Your task to perform on an android device: turn off location Image 0: 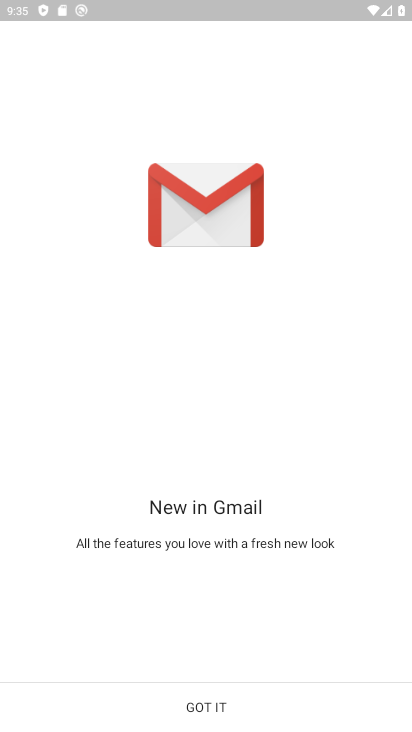
Step 0: press home button
Your task to perform on an android device: turn off location Image 1: 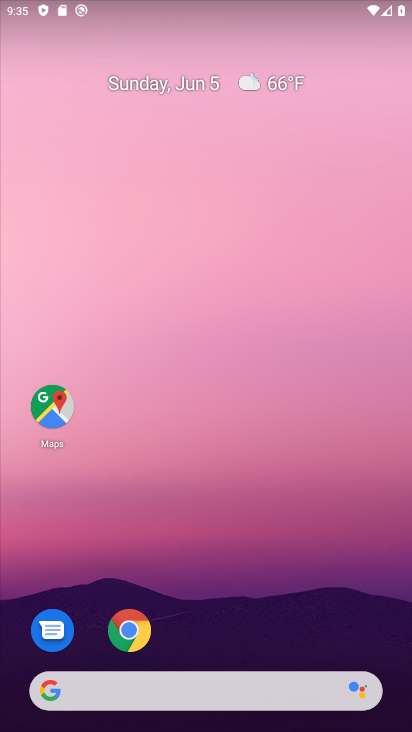
Step 1: drag from (216, 723) to (176, 166)
Your task to perform on an android device: turn off location Image 2: 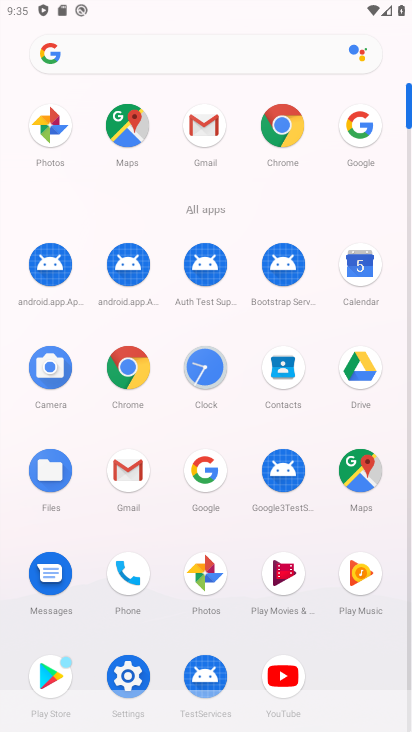
Step 2: click (127, 670)
Your task to perform on an android device: turn off location Image 3: 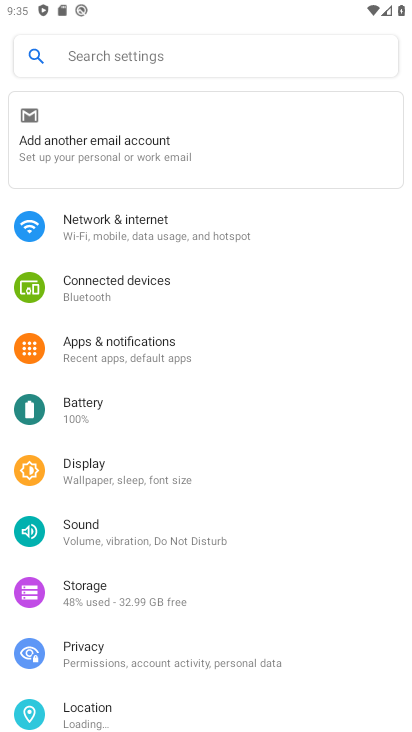
Step 3: click (88, 711)
Your task to perform on an android device: turn off location Image 4: 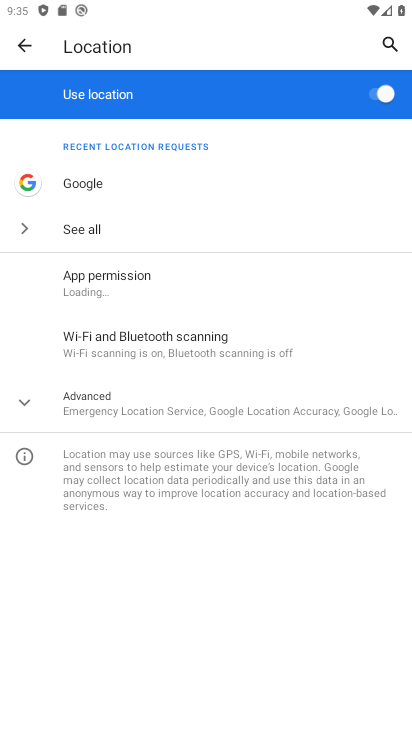
Step 4: click (375, 94)
Your task to perform on an android device: turn off location Image 5: 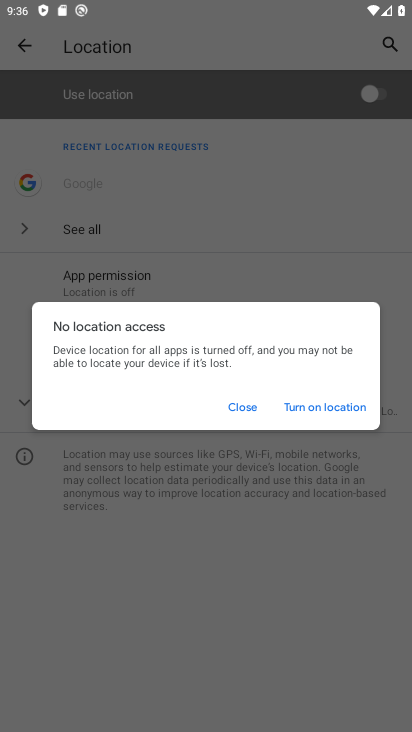
Step 5: click (240, 408)
Your task to perform on an android device: turn off location Image 6: 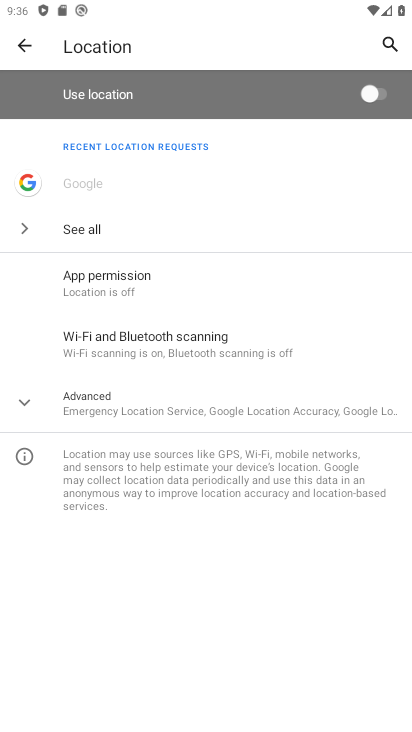
Step 6: task complete